Your task to perform on an android device: see sites visited before in the chrome app Image 0: 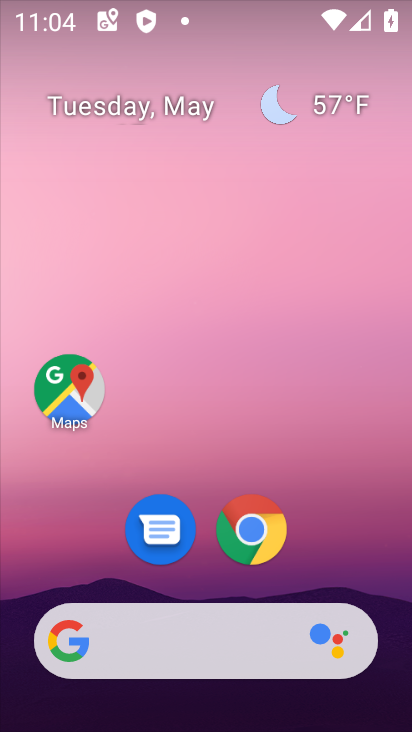
Step 0: click (251, 531)
Your task to perform on an android device: see sites visited before in the chrome app Image 1: 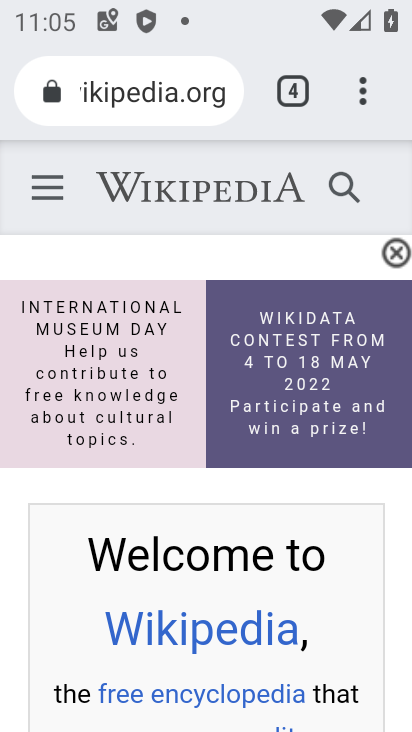
Step 1: click (374, 89)
Your task to perform on an android device: see sites visited before in the chrome app Image 2: 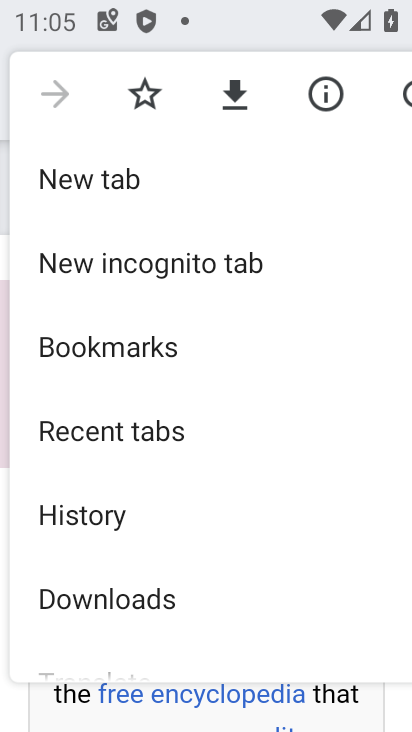
Step 2: drag from (146, 645) to (218, 105)
Your task to perform on an android device: see sites visited before in the chrome app Image 3: 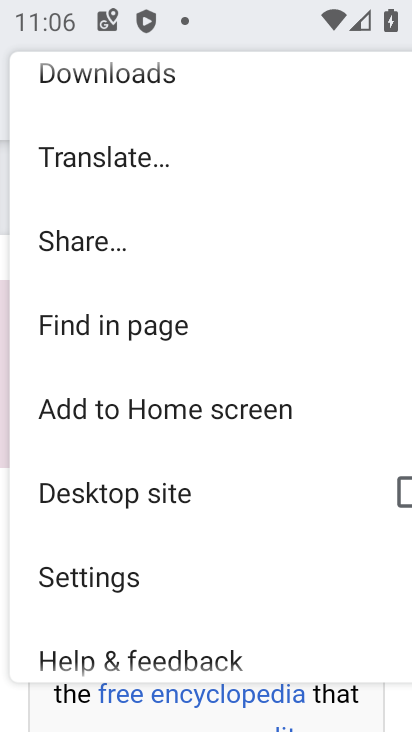
Step 3: click (120, 591)
Your task to perform on an android device: see sites visited before in the chrome app Image 4: 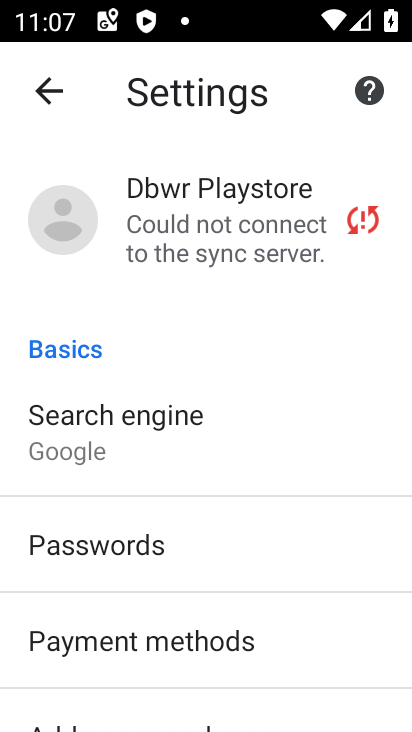
Step 4: drag from (214, 692) to (207, 261)
Your task to perform on an android device: see sites visited before in the chrome app Image 5: 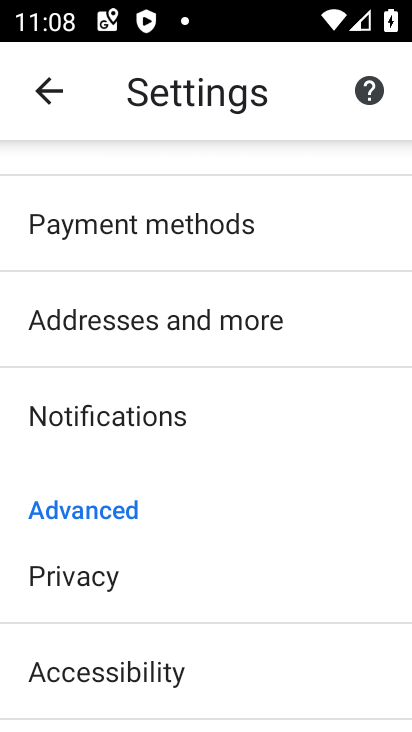
Step 5: drag from (266, 585) to (195, 5)
Your task to perform on an android device: see sites visited before in the chrome app Image 6: 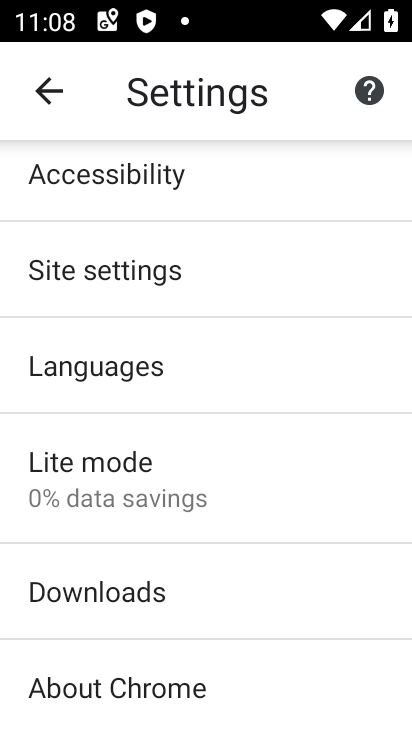
Step 6: click (46, 104)
Your task to perform on an android device: see sites visited before in the chrome app Image 7: 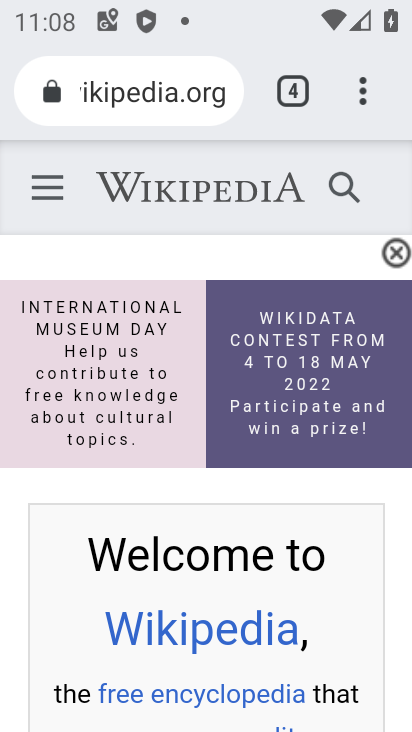
Step 7: click (374, 88)
Your task to perform on an android device: see sites visited before in the chrome app Image 8: 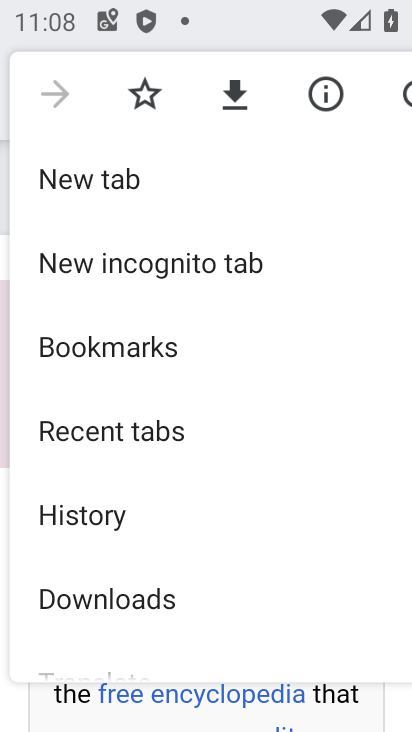
Step 8: click (200, 442)
Your task to perform on an android device: see sites visited before in the chrome app Image 9: 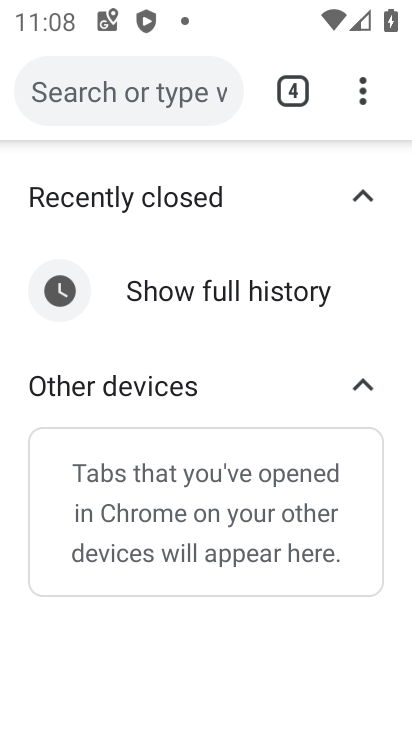
Step 9: task complete